Your task to perform on an android device: Go to Google Image 0: 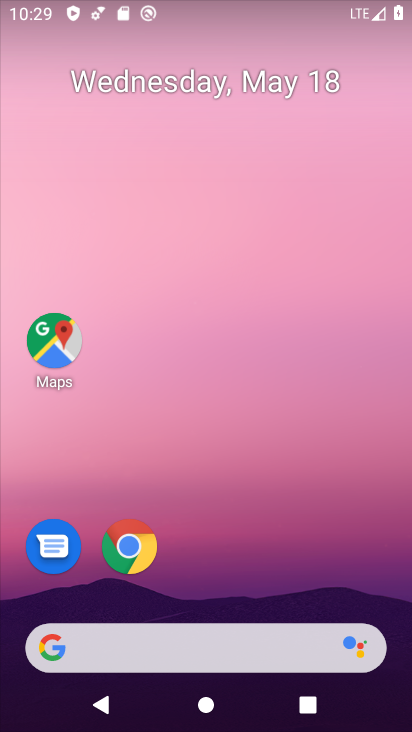
Step 0: drag from (227, 719) to (228, 148)
Your task to perform on an android device: Go to Google Image 1: 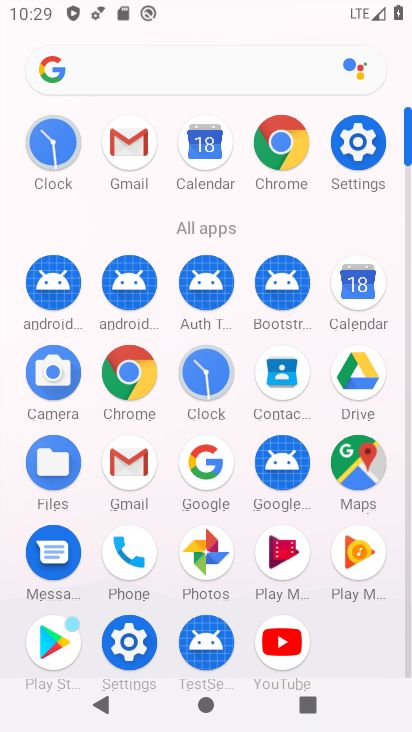
Step 1: click (205, 464)
Your task to perform on an android device: Go to Google Image 2: 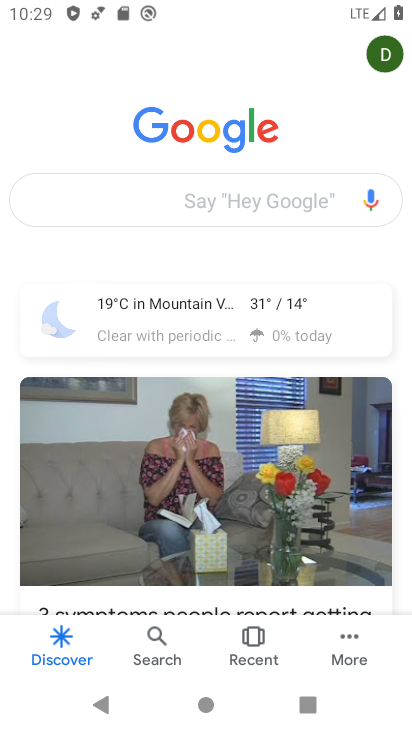
Step 2: task complete